Your task to perform on an android device: toggle wifi Image 0: 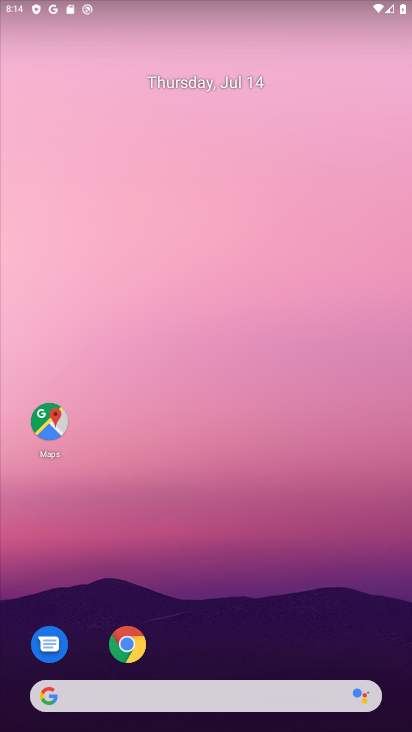
Step 0: drag from (237, 684) to (308, 273)
Your task to perform on an android device: toggle wifi Image 1: 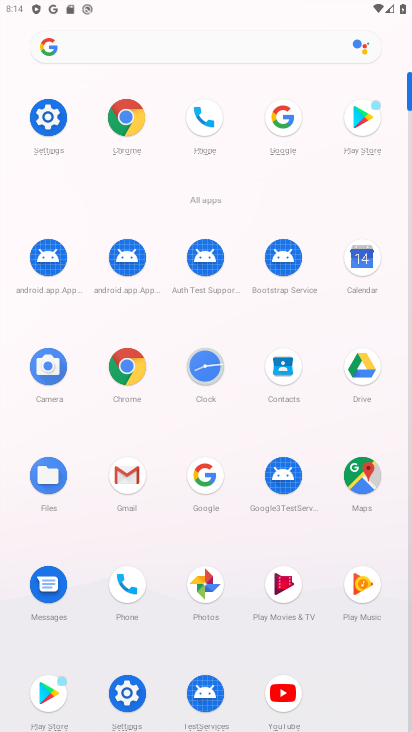
Step 1: click (123, 697)
Your task to perform on an android device: toggle wifi Image 2: 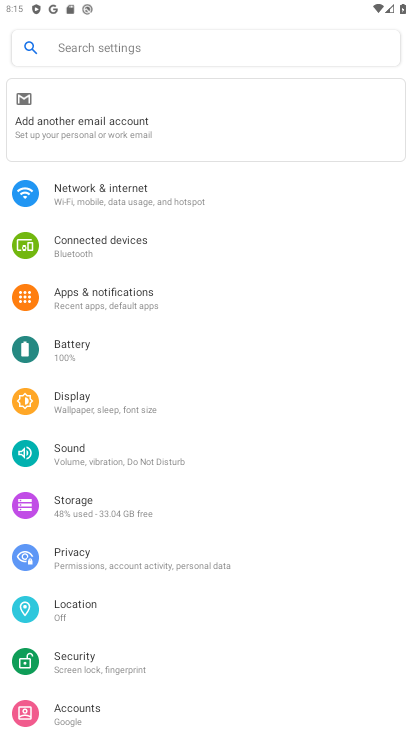
Step 2: click (130, 201)
Your task to perform on an android device: toggle wifi Image 3: 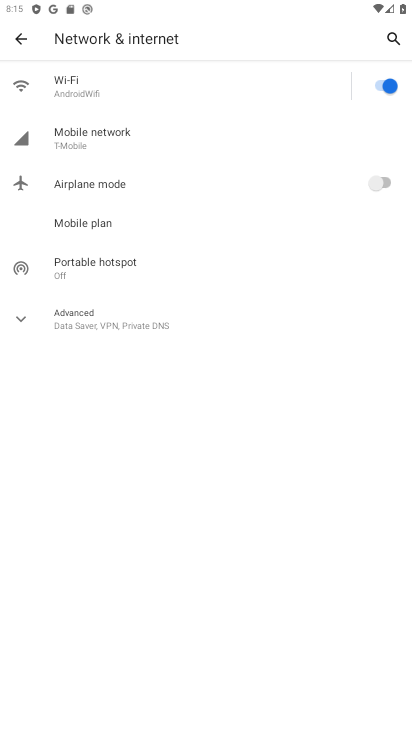
Step 3: click (379, 79)
Your task to perform on an android device: toggle wifi Image 4: 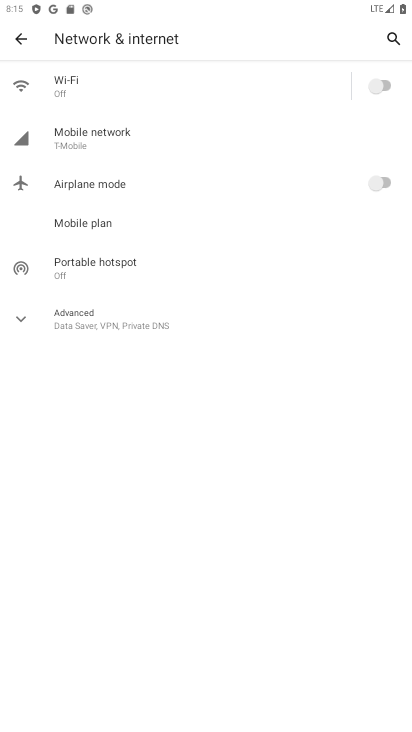
Step 4: task complete